Your task to perform on an android device: Open battery settings Image 0: 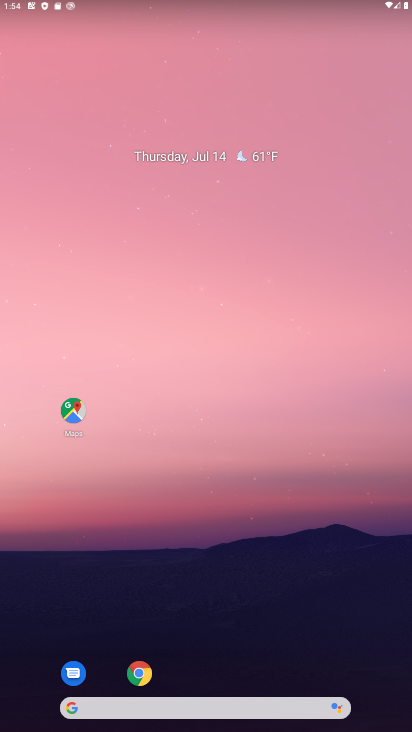
Step 0: drag from (237, 7) to (224, 643)
Your task to perform on an android device: Open battery settings Image 1: 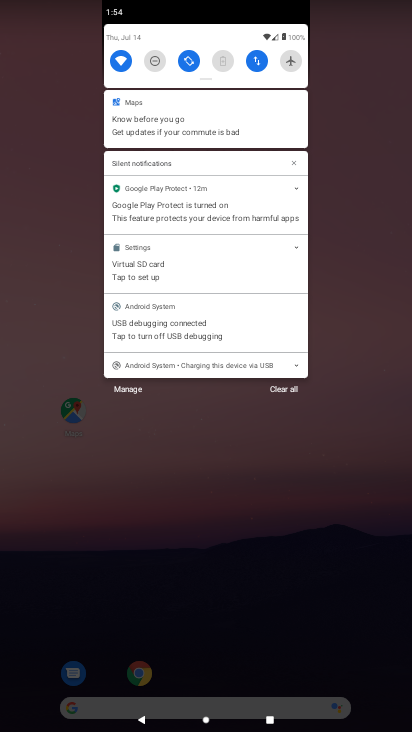
Step 1: drag from (216, 33) to (206, 648)
Your task to perform on an android device: Open battery settings Image 2: 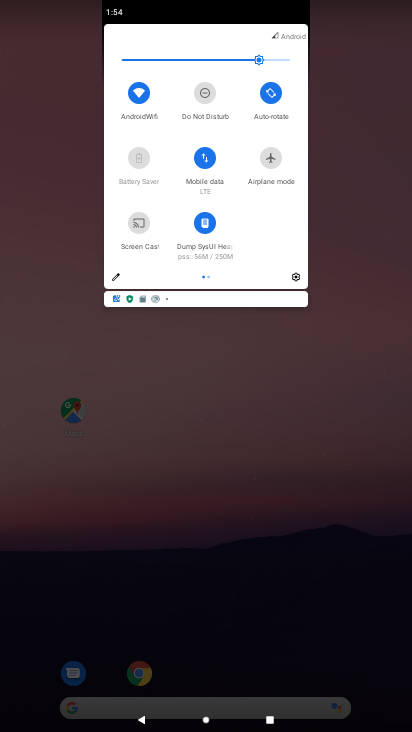
Step 2: click (136, 164)
Your task to perform on an android device: Open battery settings Image 3: 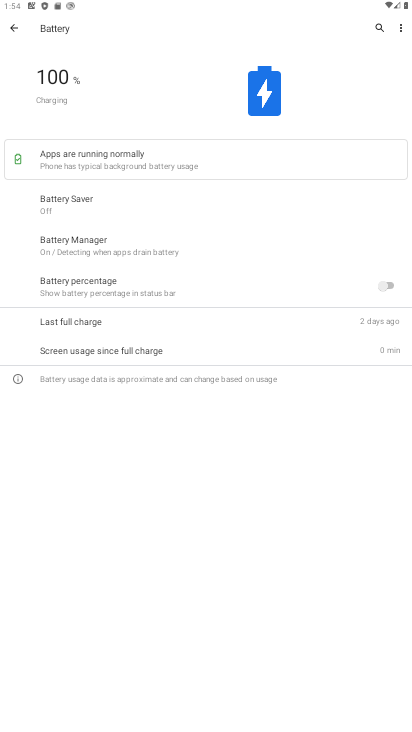
Step 3: task complete